Your task to perform on an android device: open app "Airtel Thanks" (install if not already installed) Image 0: 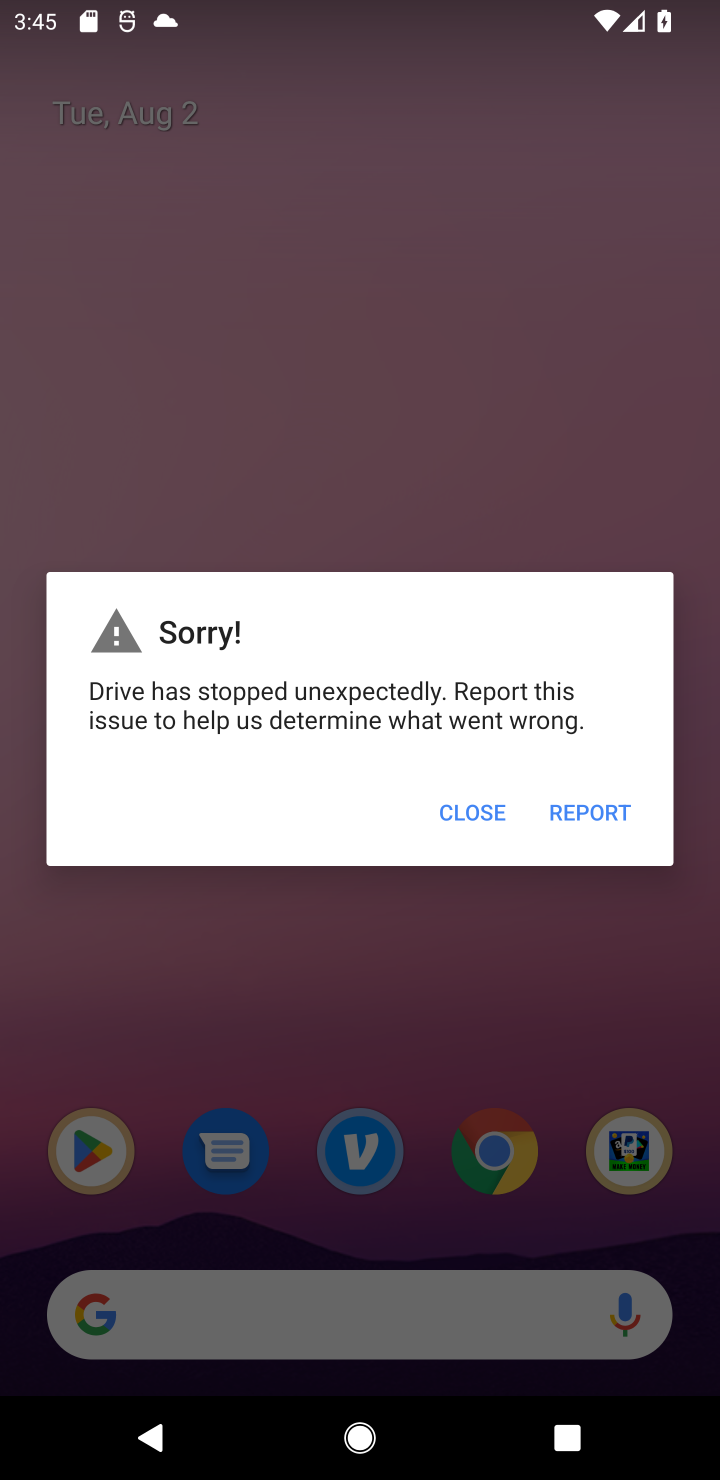
Step 0: press home button
Your task to perform on an android device: open app "Airtel Thanks" (install if not already installed) Image 1: 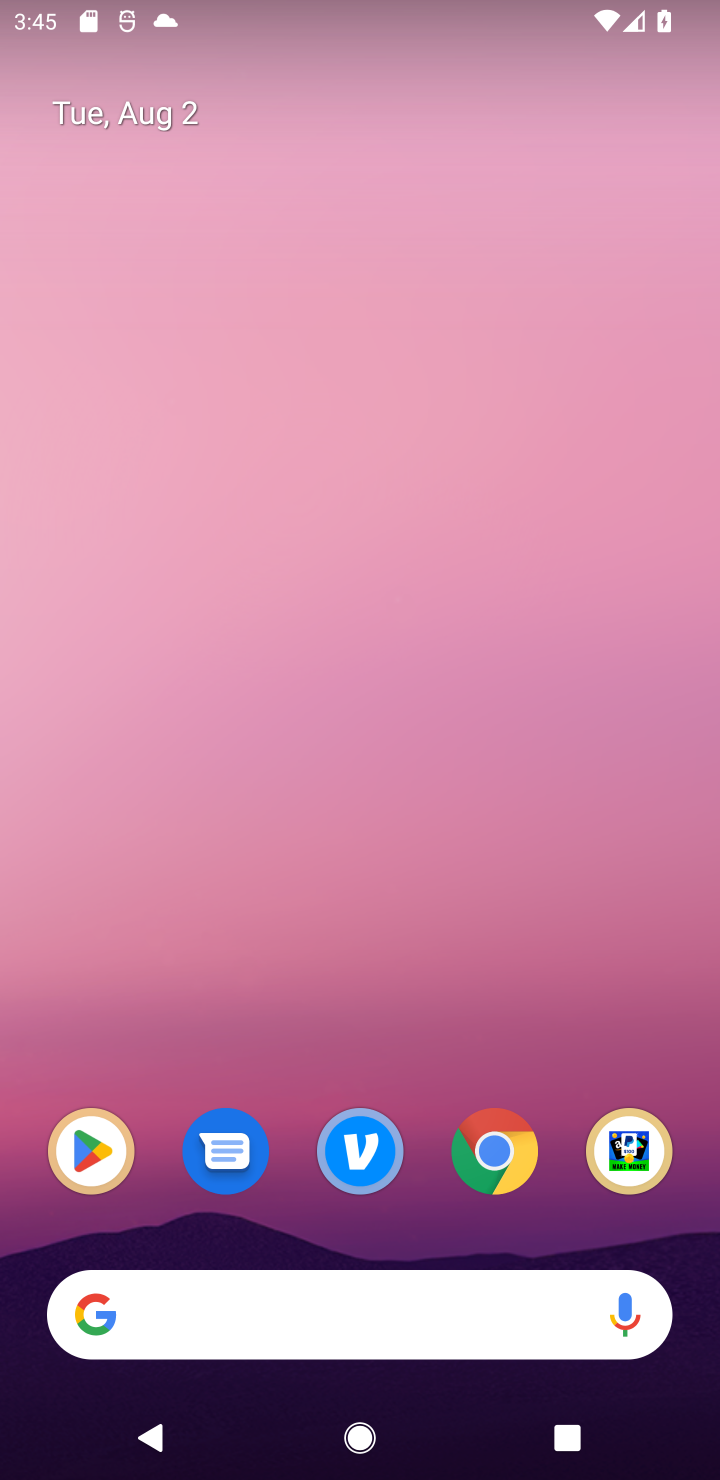
Step 1: drag from (373, 1200) to (443, 345)
Your task to perform on an android device: open app "Airtel Thanks" (install if not already installed) Image 2: 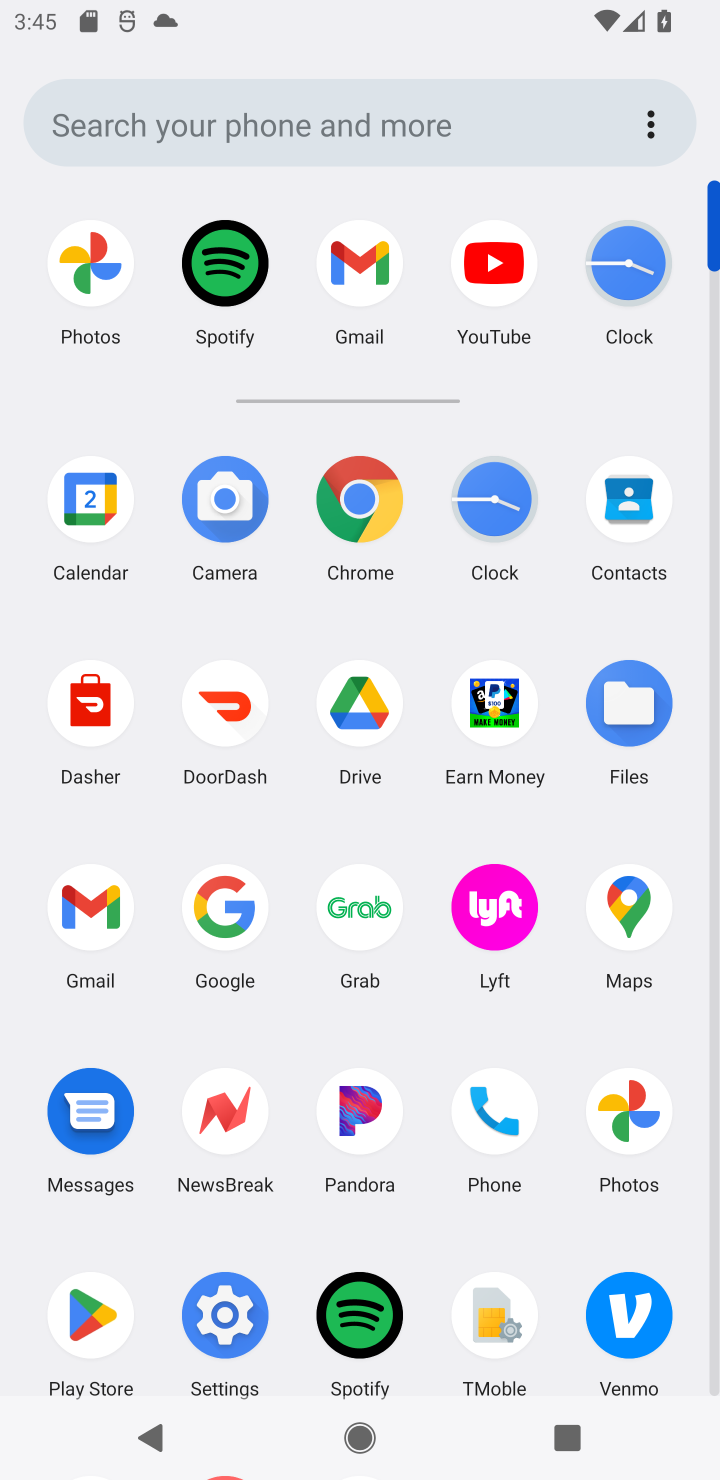
Step 2: click (95, 1323)
Your task to perform on an android device: open app "Airtel Thanks" (install if not already installed) Image 3: 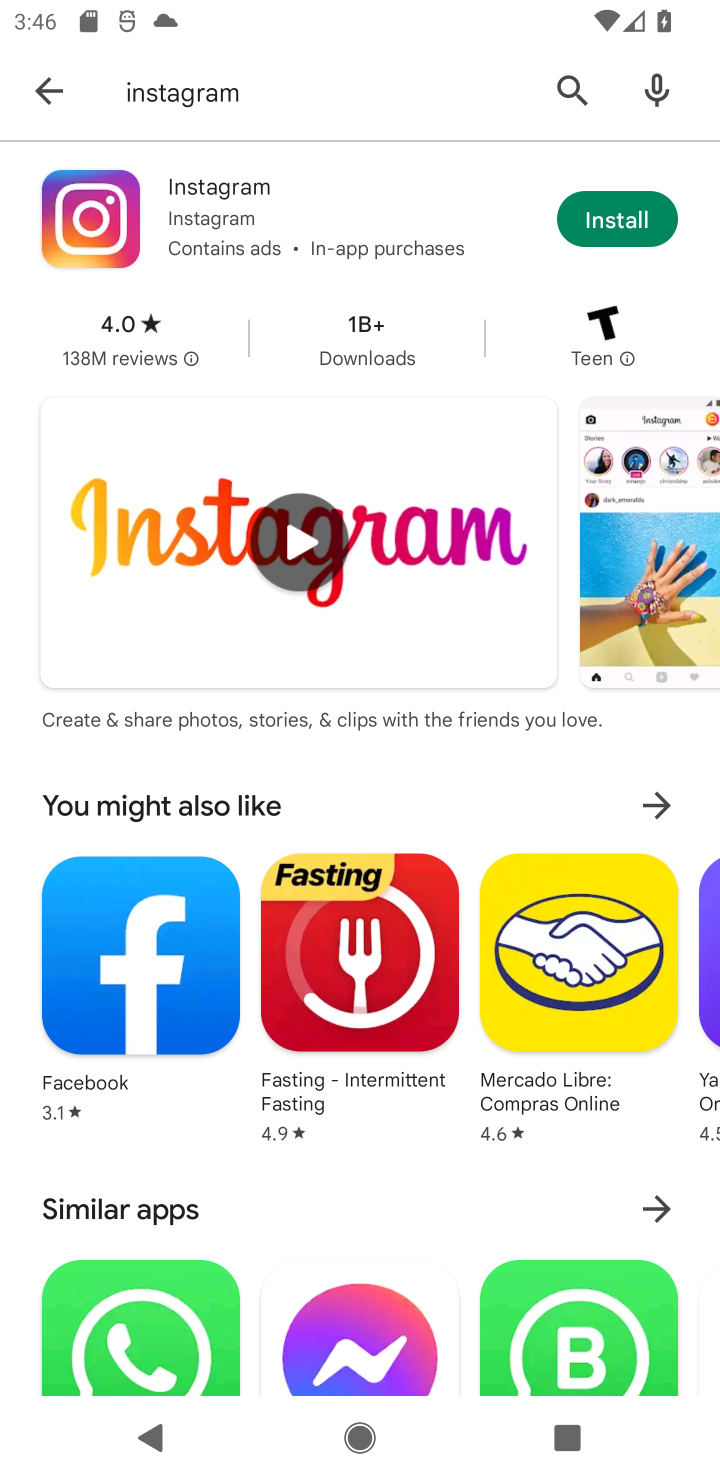
Step 3: click (59, 96)
Your task to perform on an android device: open app "Airtel Thanks" (install if not already installed) Image 4: 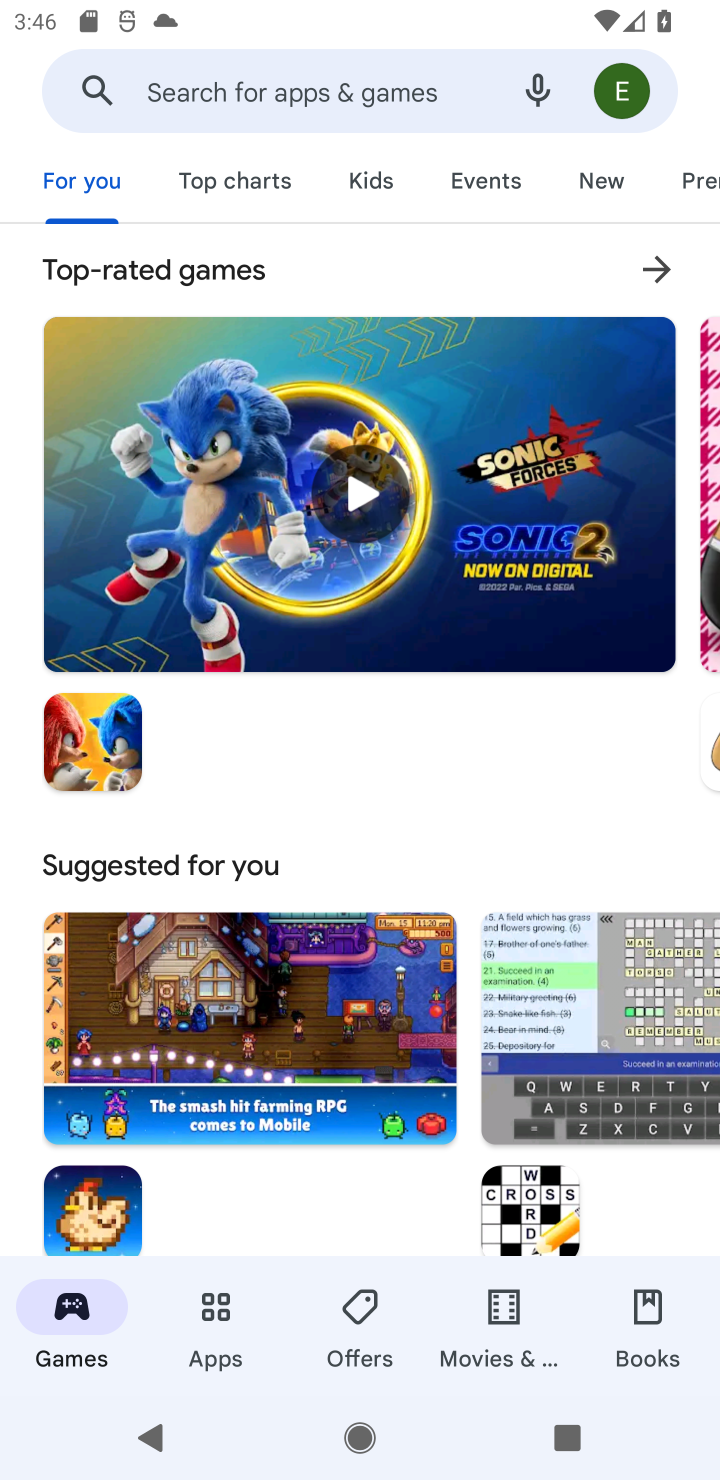
Step 4: click (173, 77)
Your task to perform on an android device: open app "Airtel Thanks" (install if not already installed) Image 5: 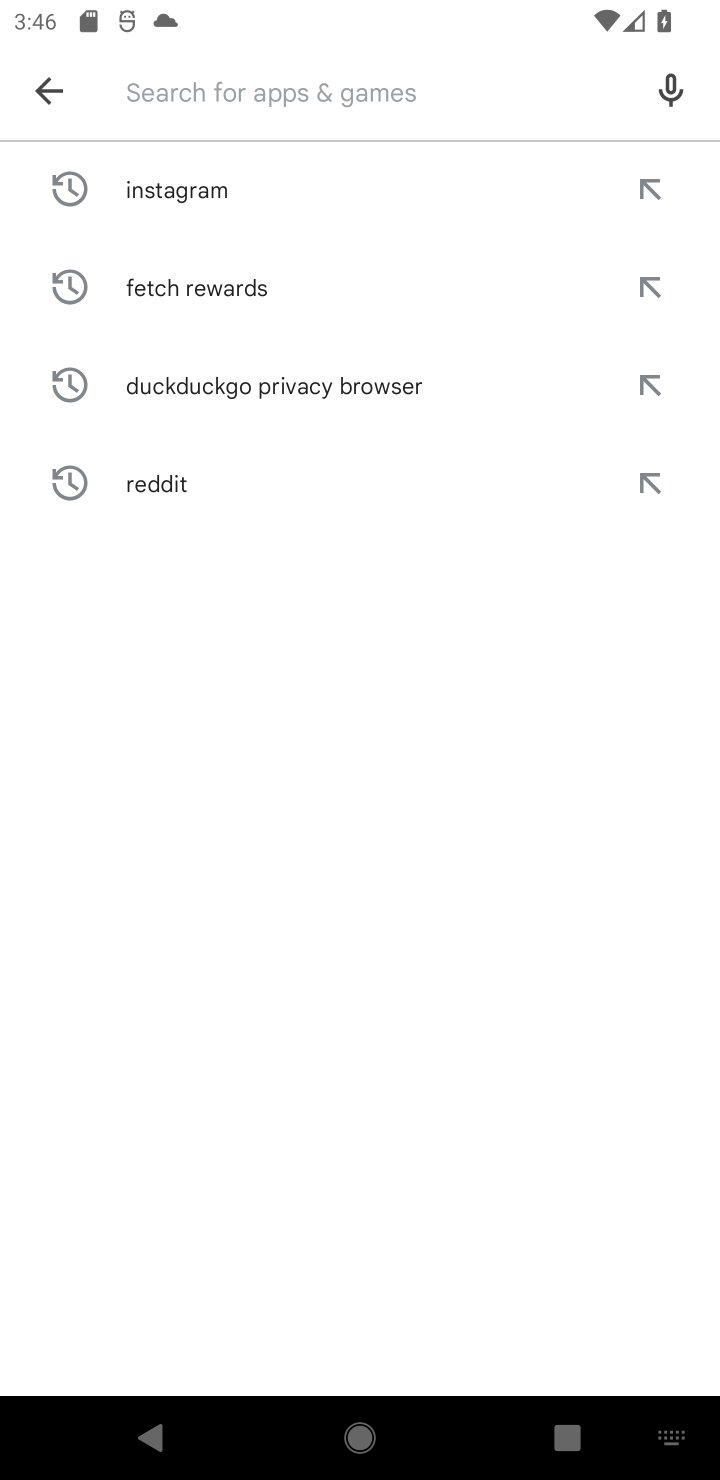
Step 5: click (286, 74)
Your task to perform on an android device: open app "Airtel Thanks" (install if not already installed) Image 6: 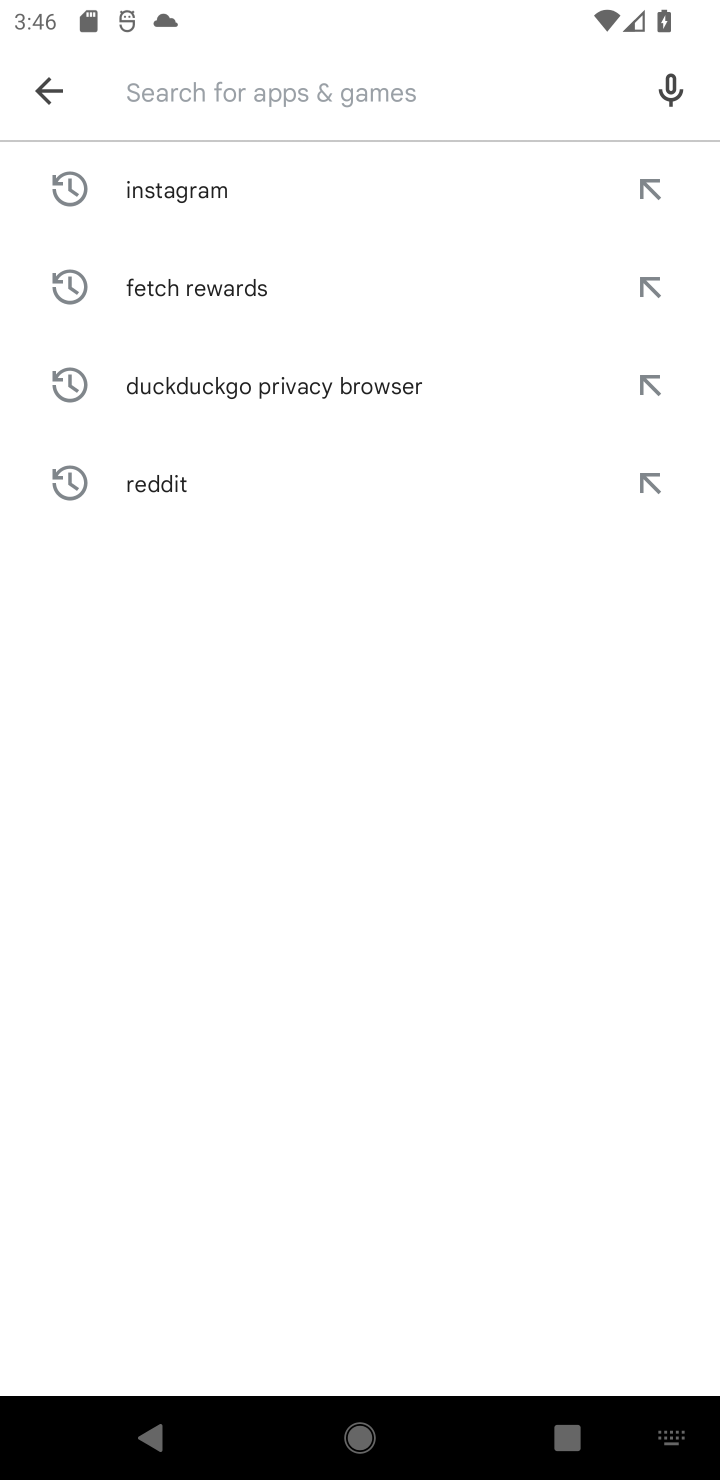
Step 6: type "Airtel Thanks"
Your task to perform on an android device: open app "Airtel Thanks" (install if not already installed) Image 7: 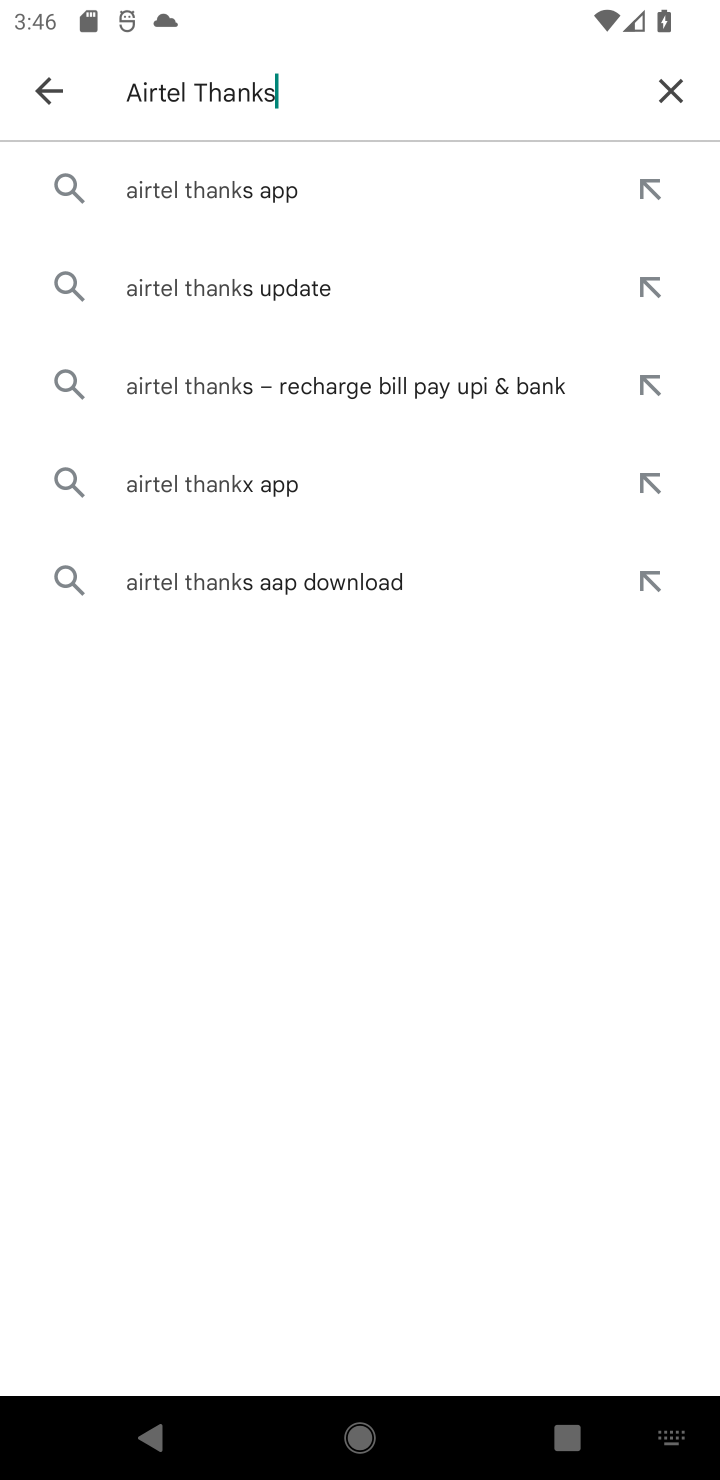
Step 7: type ""
Your task to perform on an android device: open app "Airtel Thanks" (install if not already installed) Image 8: 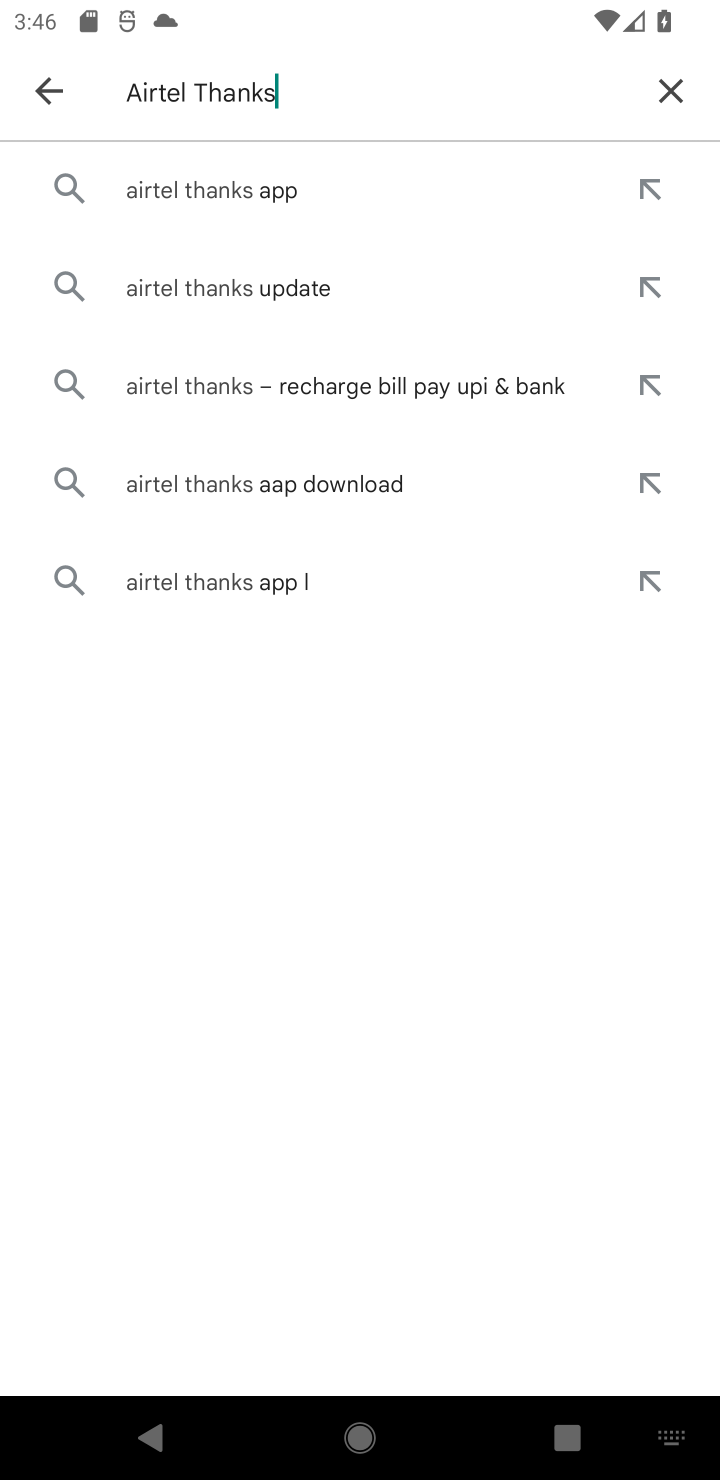
Step 8: click (221, 186)
Your task to perform on an android device: open app "Airtel Thanks" (install if not already installed) Image 9: 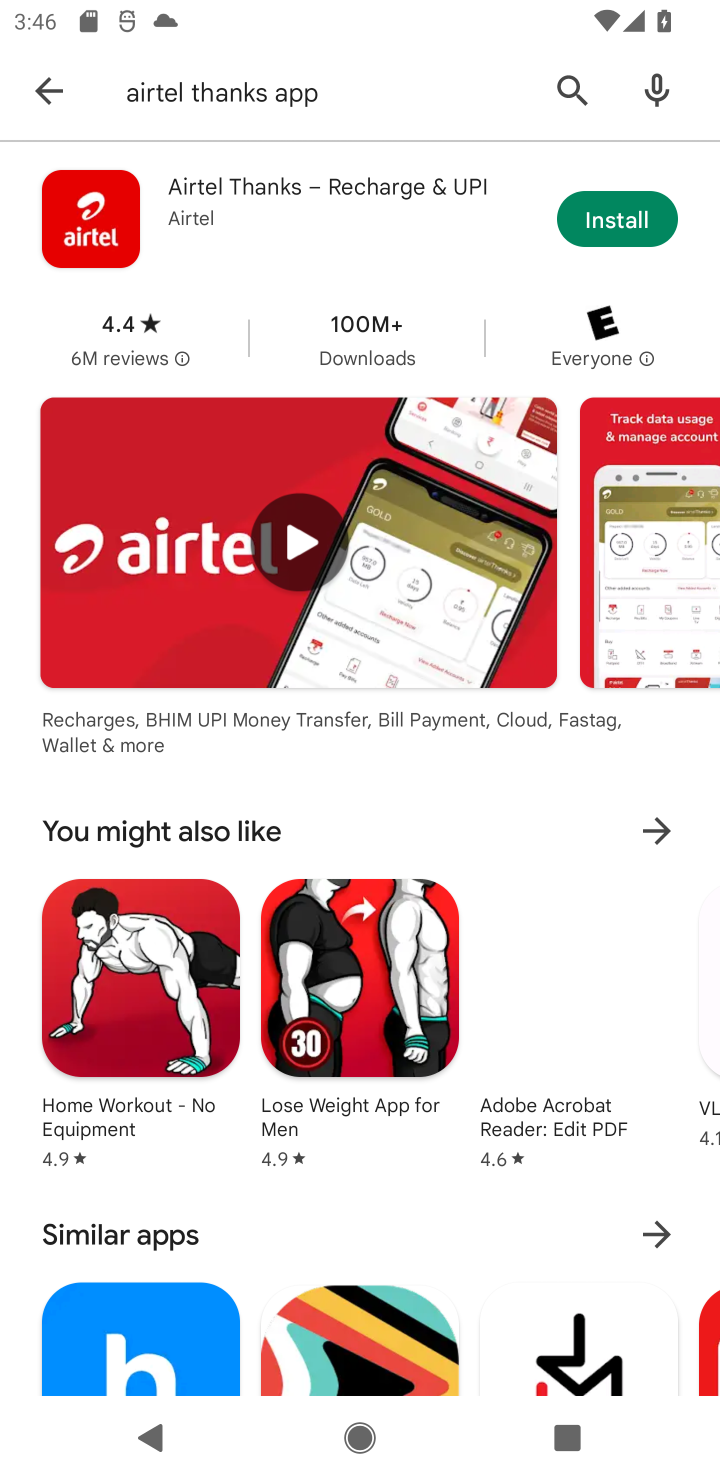
Step 9: click (584, 236)
Your task to perform on an android device: open app "Airtel Thanks" (install if not already installed) Image 10: 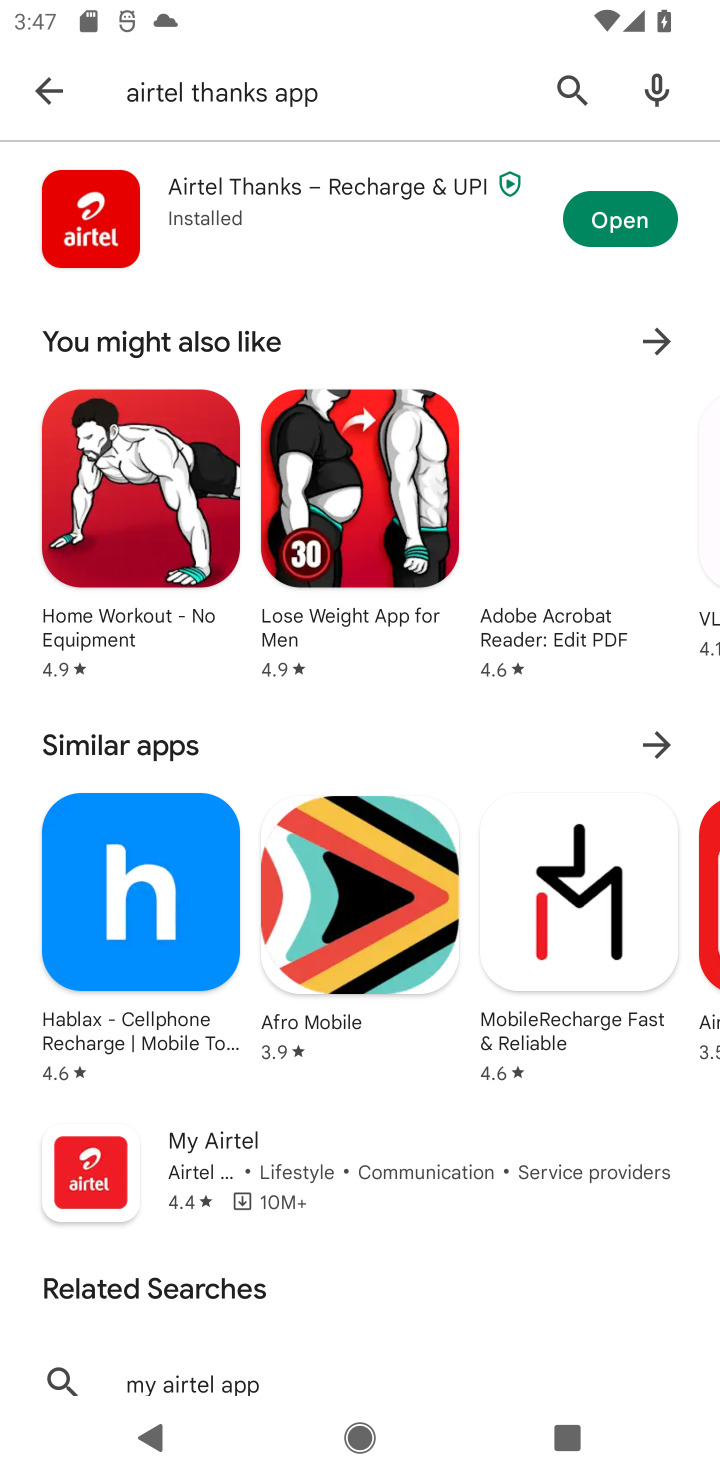
Step 10: click (630, 226)
Your task to perform on an android device: open app "Airtel Thanks" (install if not already installed) Image 11: 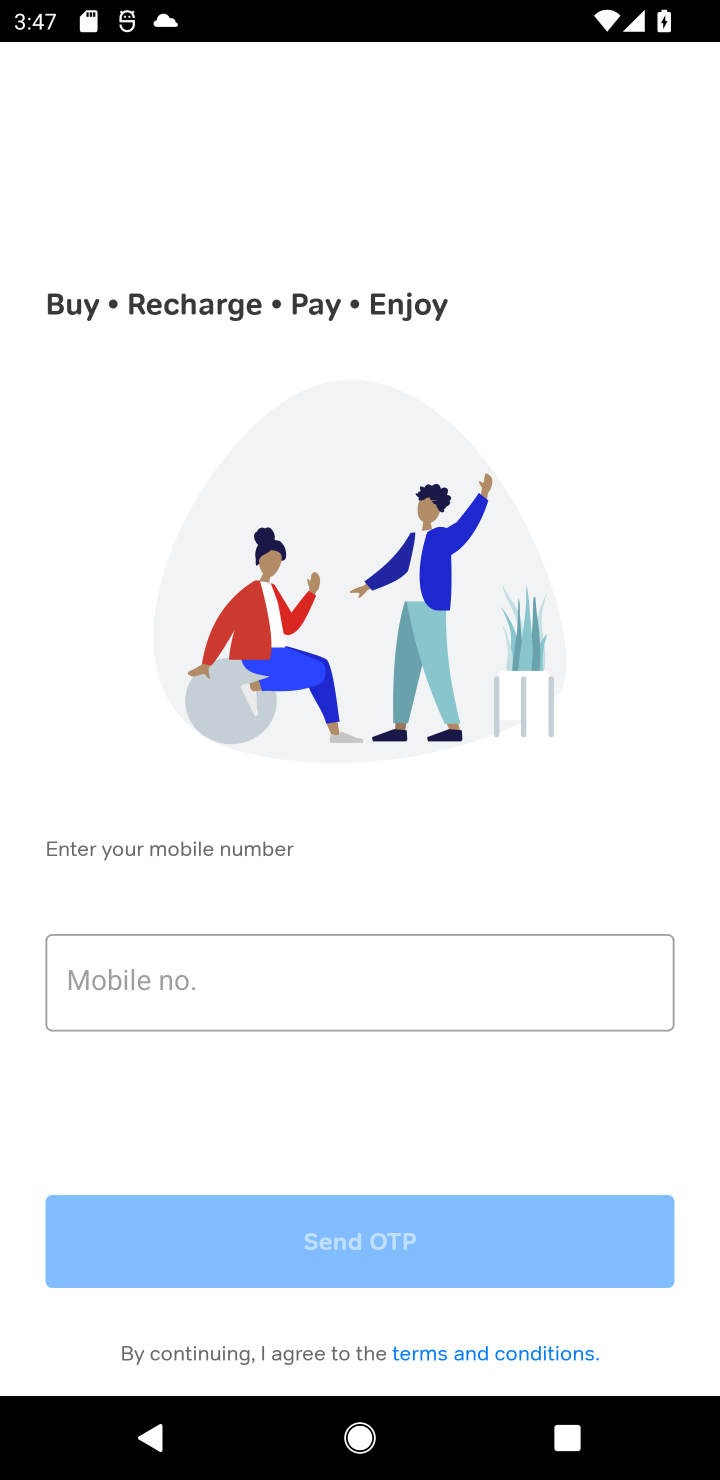
Step 11: task complete